Your task to perform on an android device: Open display settings Image 0: 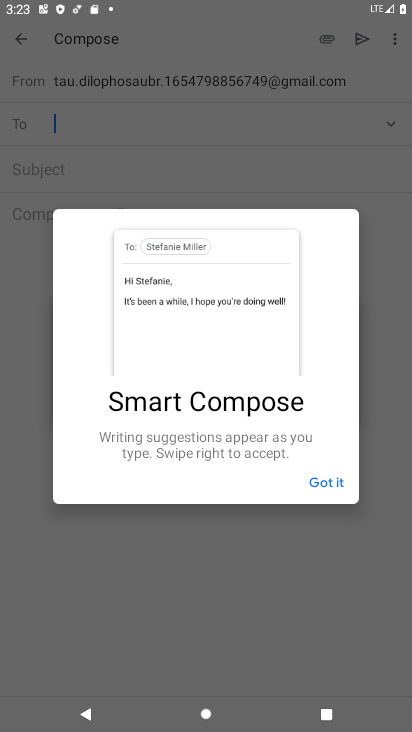
Step 0: drag from (267, 13) to (168, 424)
Your task to perform on an android device: Open display settings Image 1: 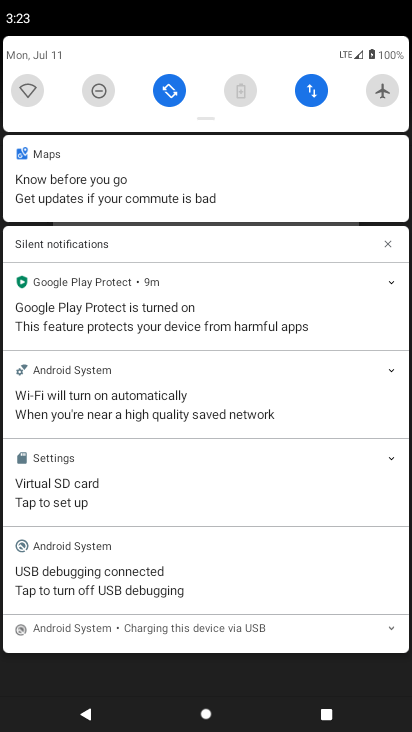
Step 1: drag from (282, 61) to (180, 661)
Your task to perform on an android device: Open display settings Image 2: 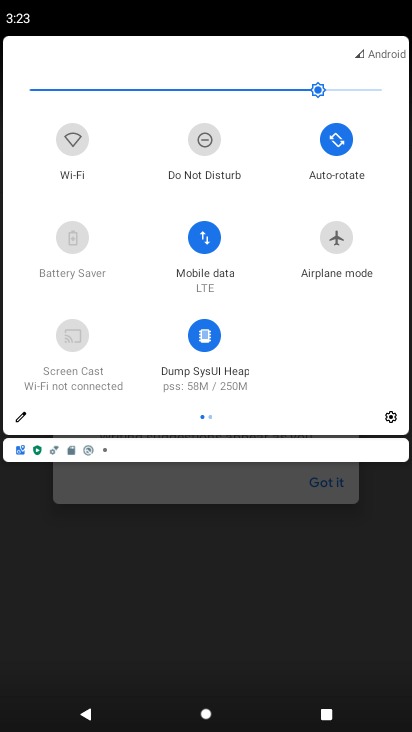
Step 2: click (394, 420)
Your task to perform on an android device: Open display settings Image 3: 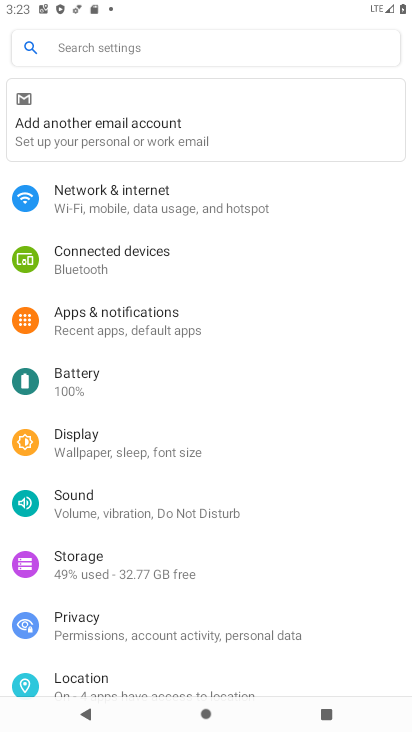
Step 3: click (156, 449)
Your task to perform on an android device: Open display settings Image 4: 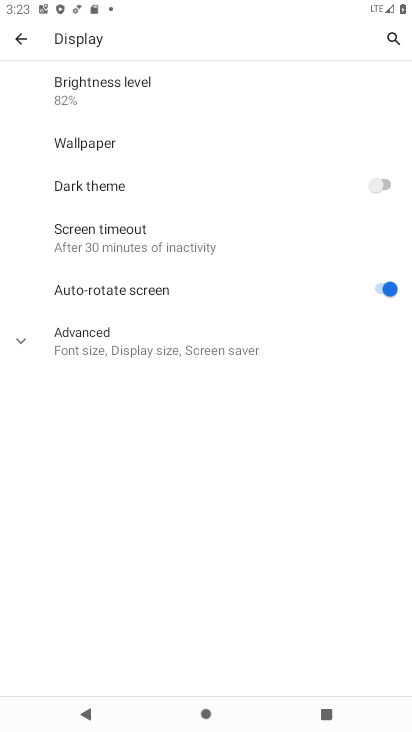
Step 4: task complete